Your task to perform on an android device: stop showing notifications on the lock screen Image 0: 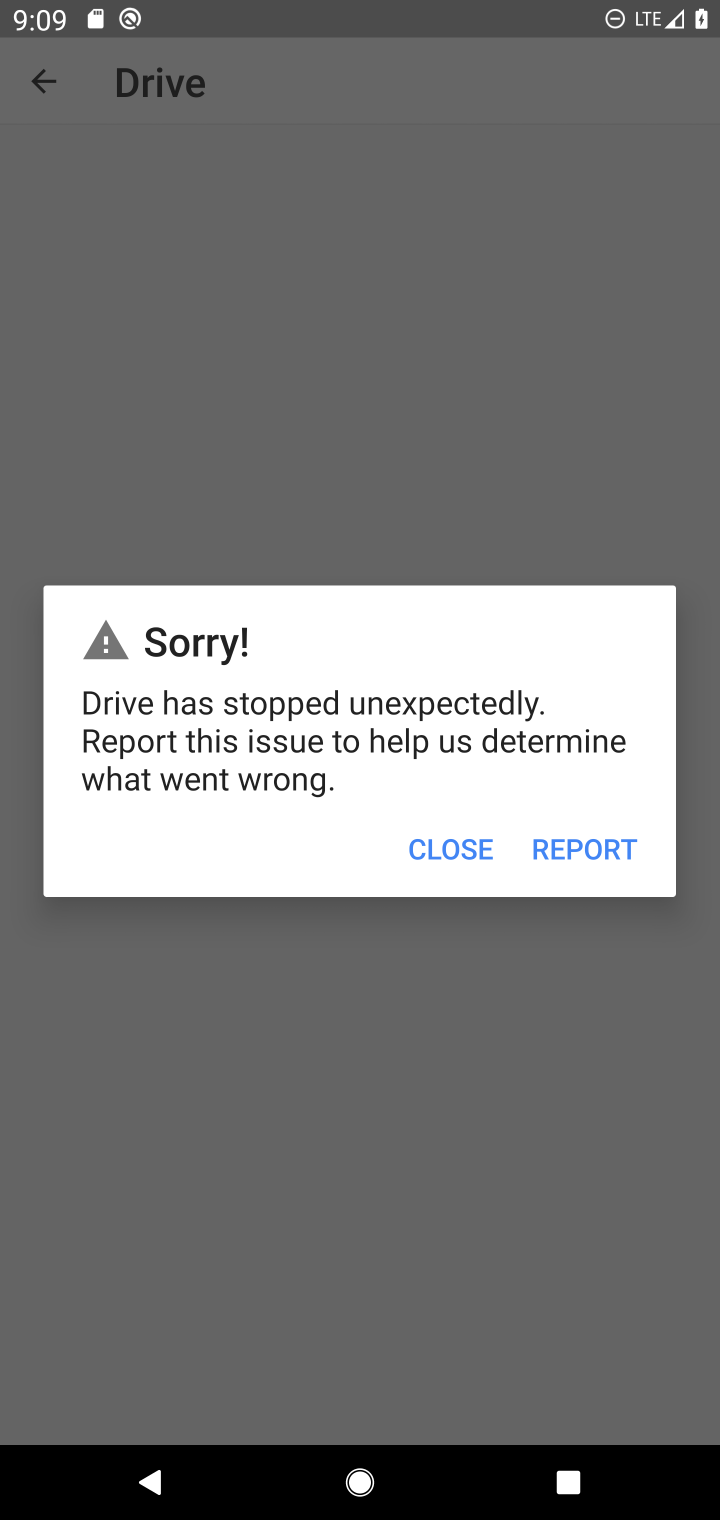
Step 0: press home button
Your task to perform on an android device: stop showing notifications on the lock screen Image 1: 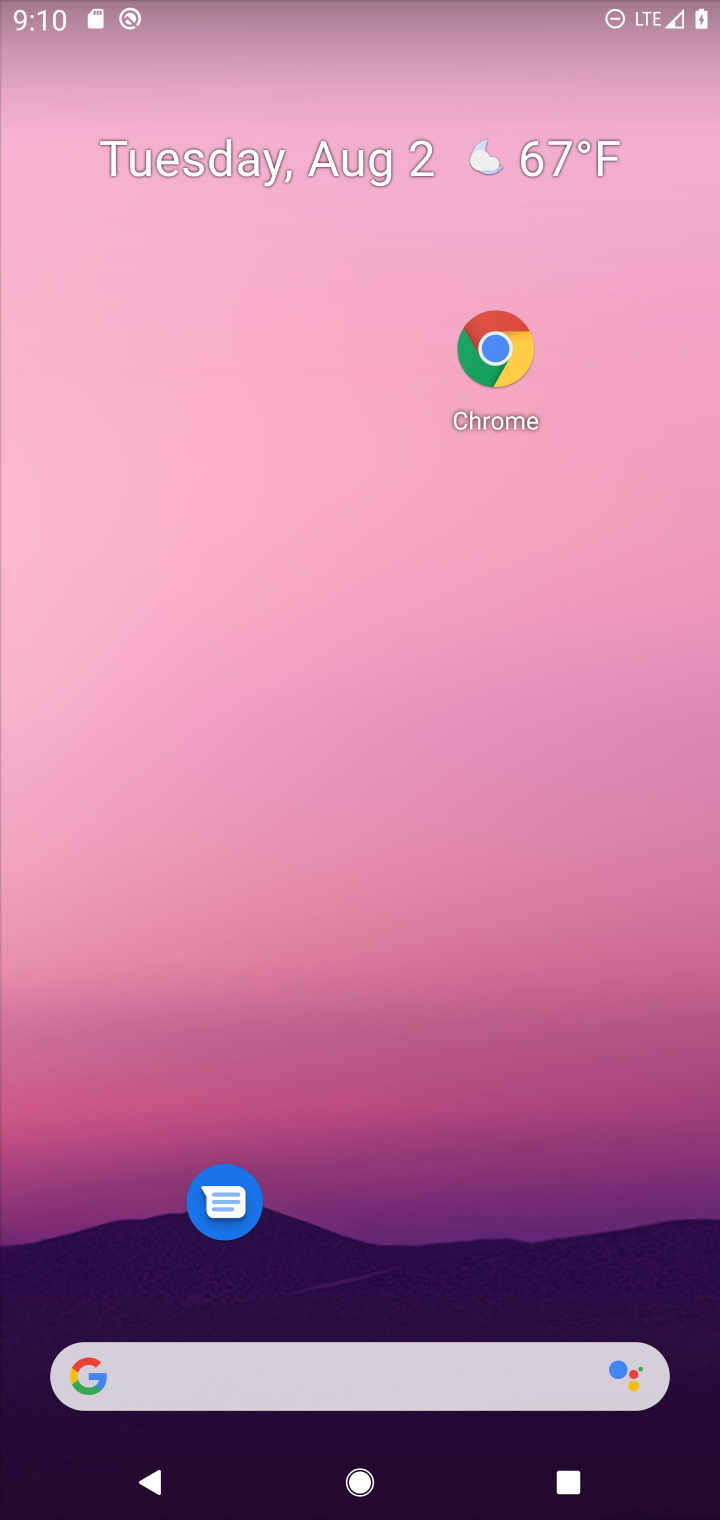
Step 1: drag from (423, 1115) to (475, 71)
Your task to perform on an android device: stop showing notifications on the lock screen Image 2: 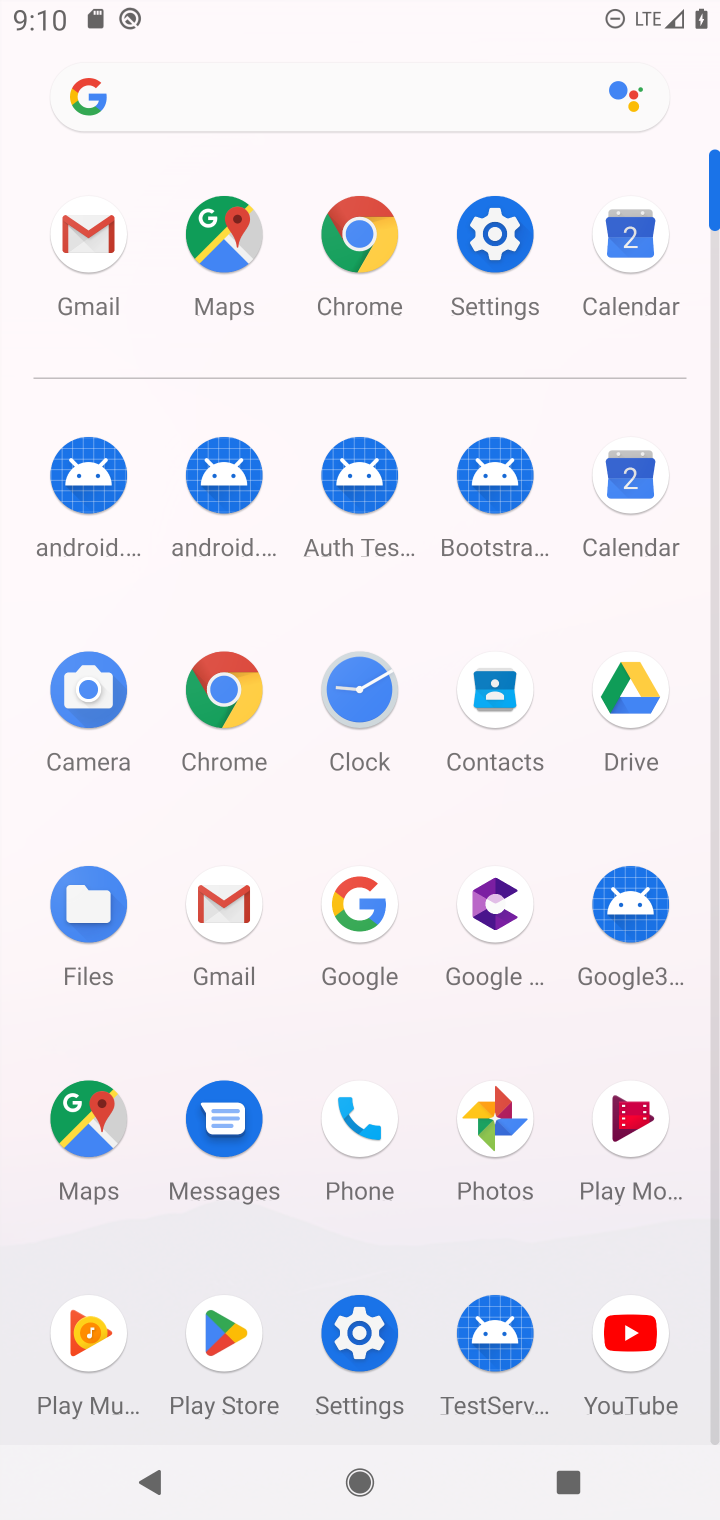
Step 2: click (497, 232)
Your task to perform on an android device: stop showing notifications on the lock screen Image 3: 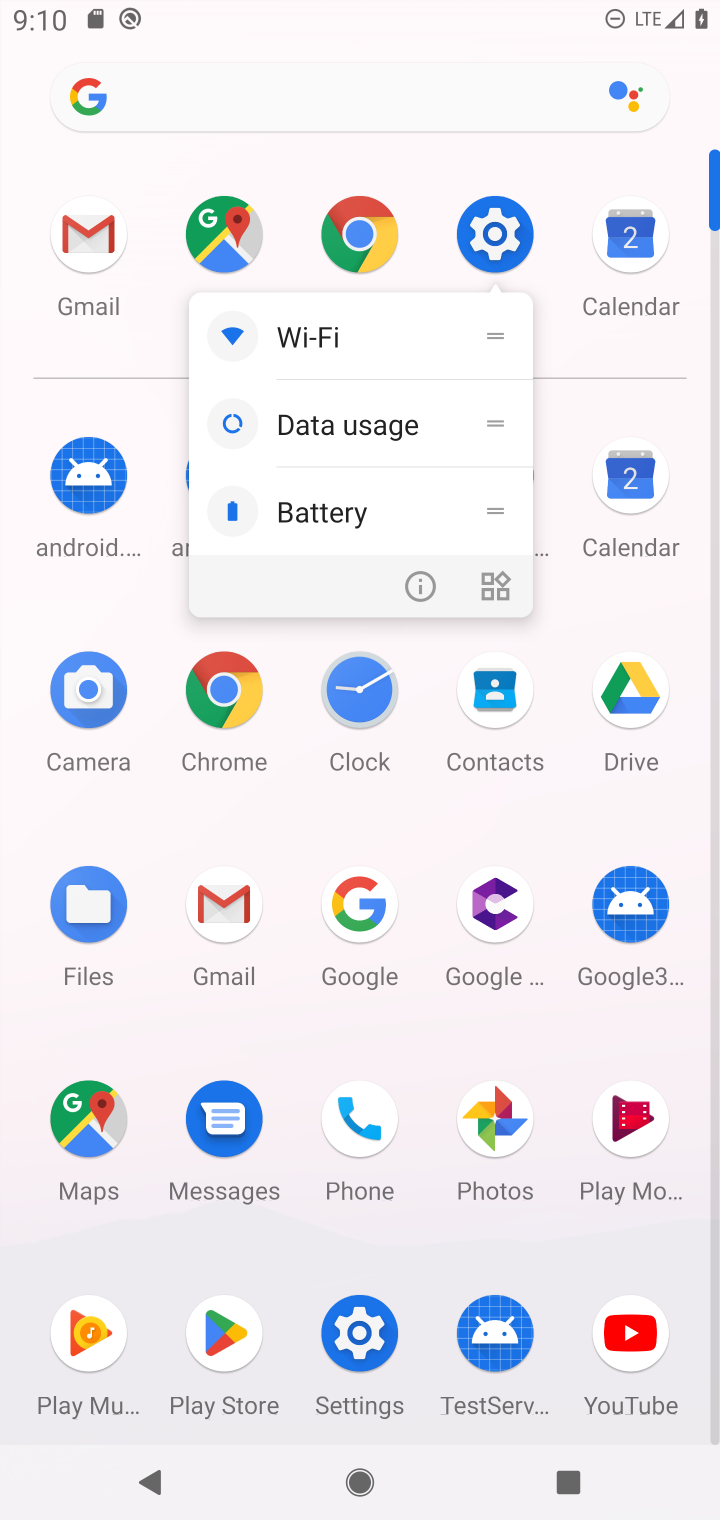
Step 3: click (497, 232)
Your task to perform on an android device: stop showing notifications on the lock screen Image 4: 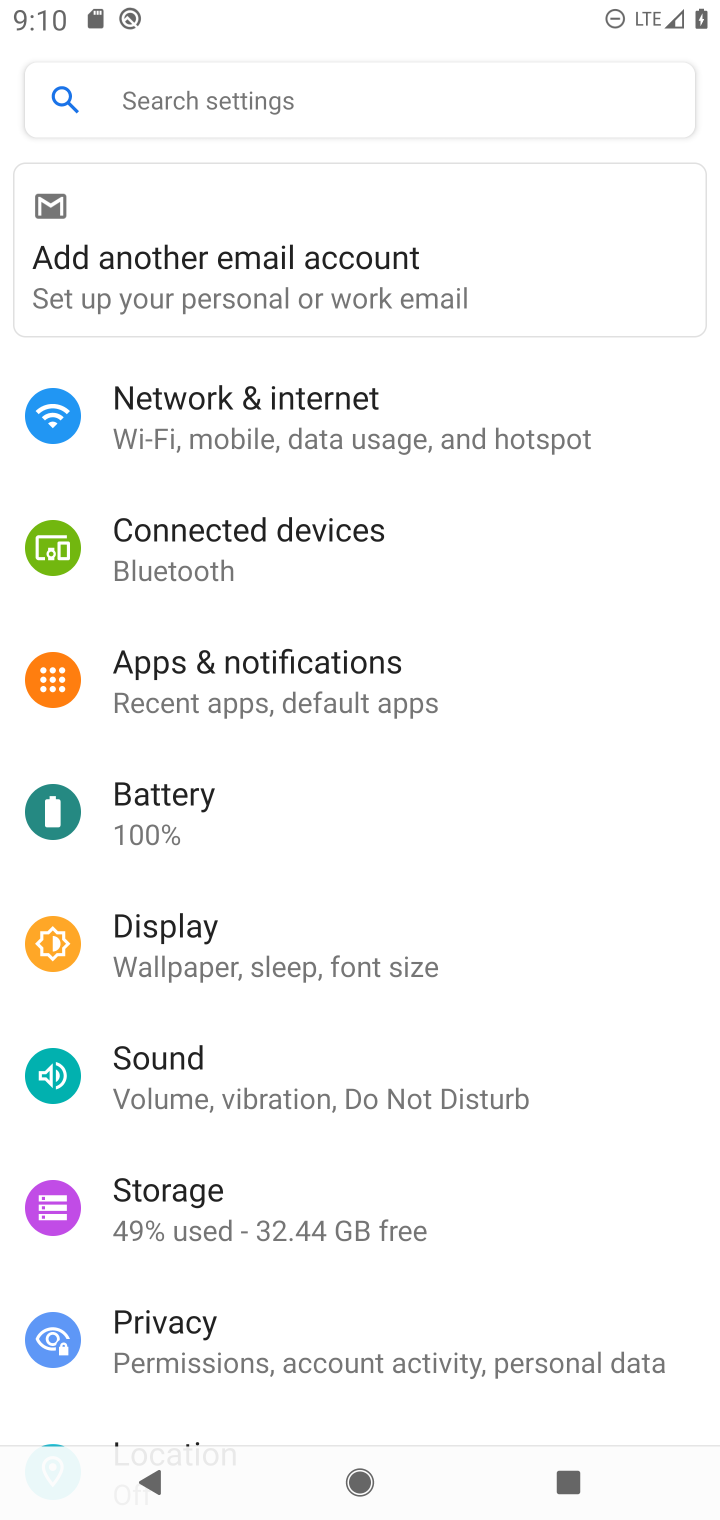
Step 4: click (280, 688)
Your task to perform on an android device: stop showing notifications on the lock screen Image 5: 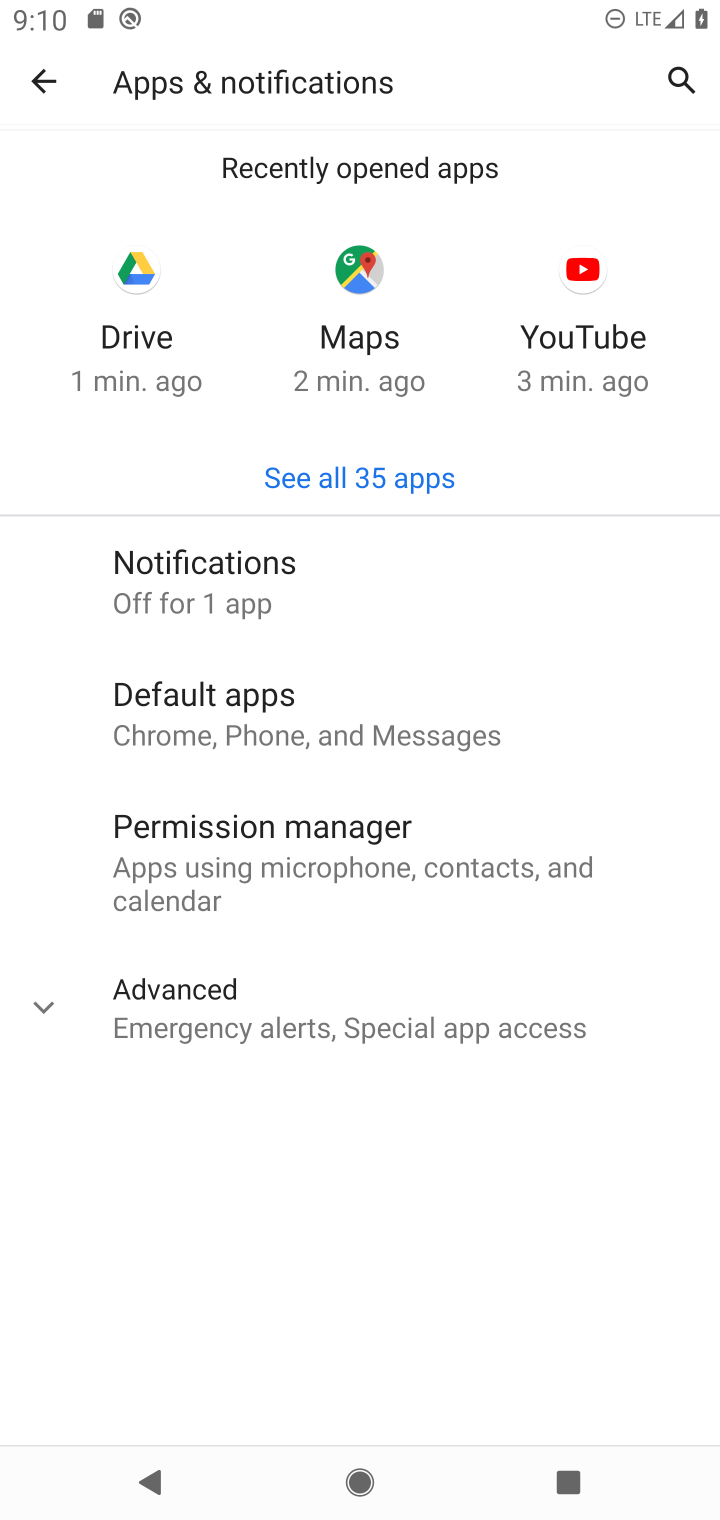
Step 5: click (210, 596)
Your task to perform on an android device: stop showing notifications on the lock screen Image 6: 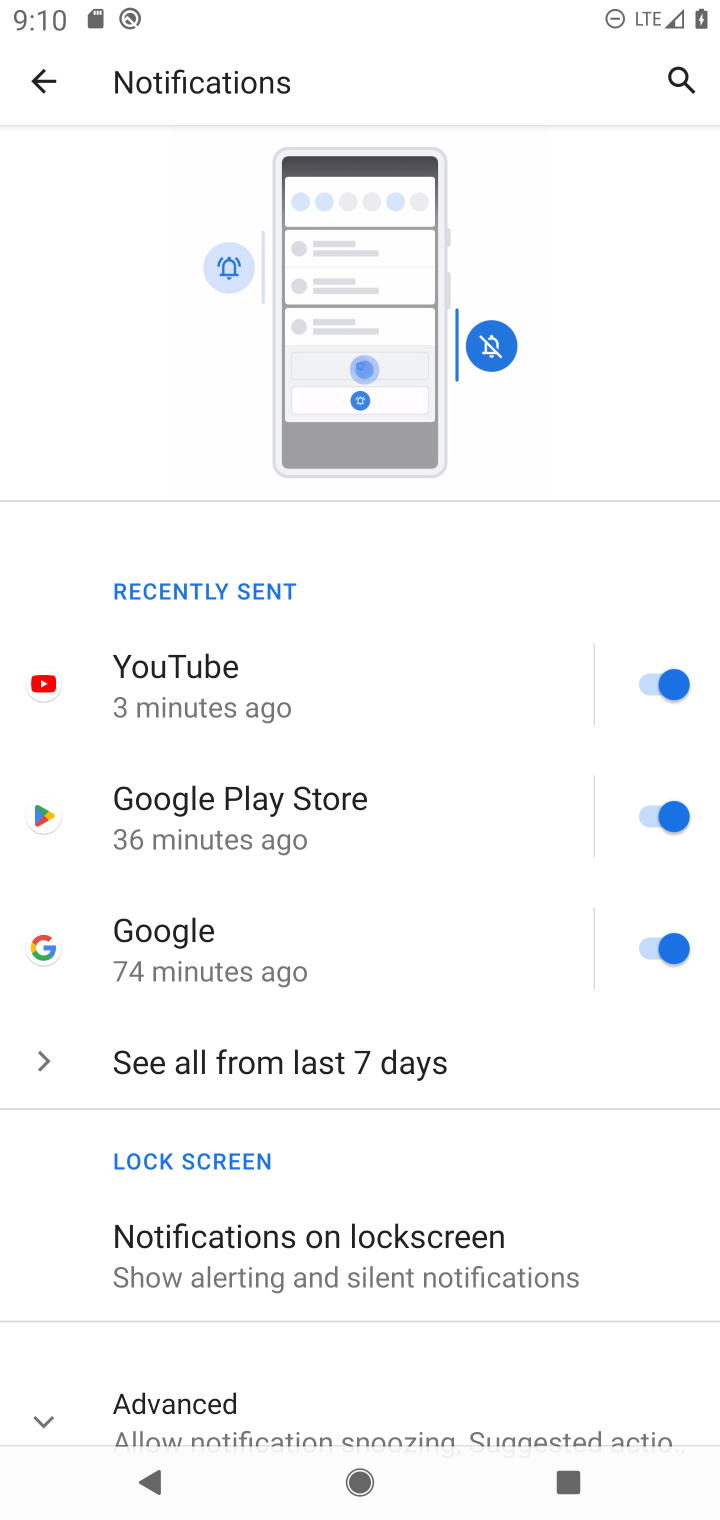
Step 6: click (249, 1242)
Your task to perform on an android device: stop showing notifications on the lock screen Image 7: 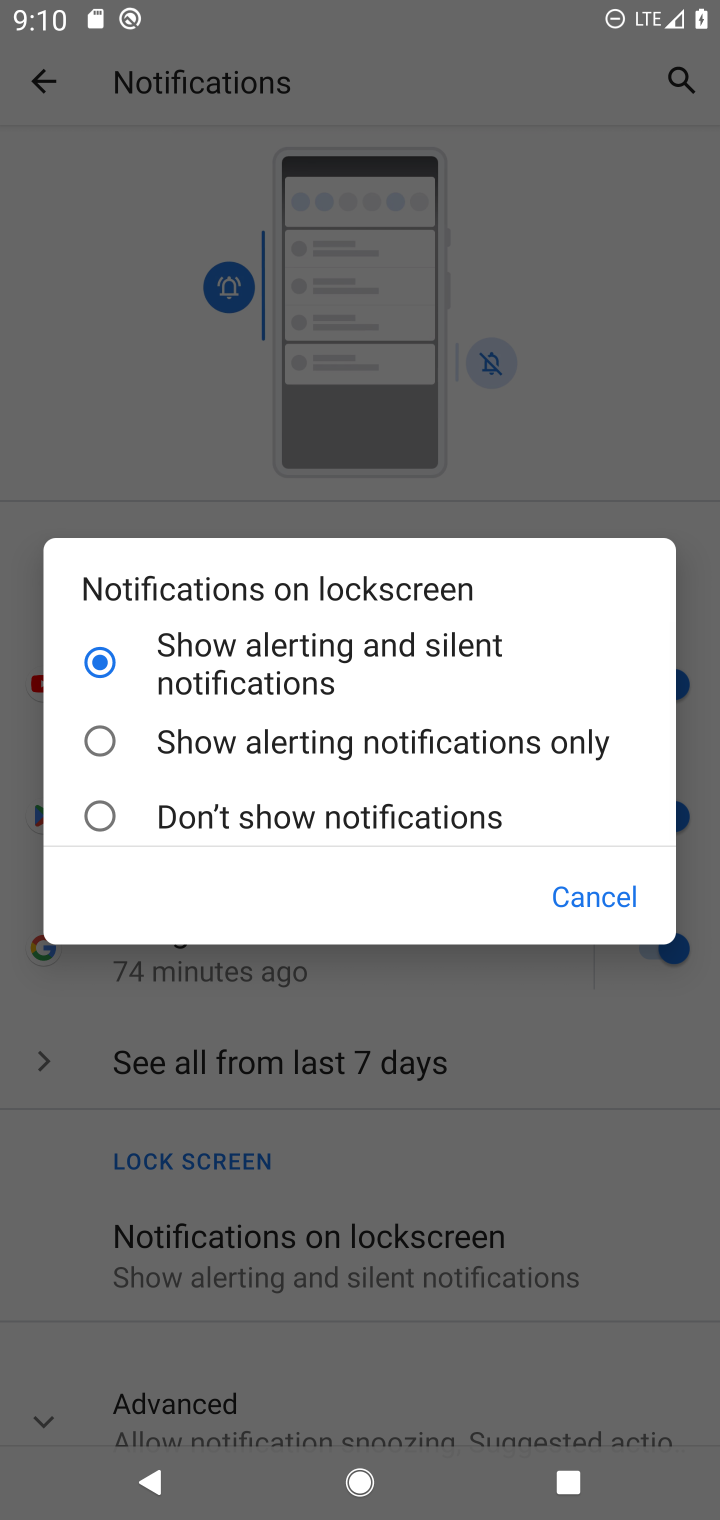
Step 7: click (100, 815)
Your task to perform on an android device: stop showing notifications on the lock screen Image 8: 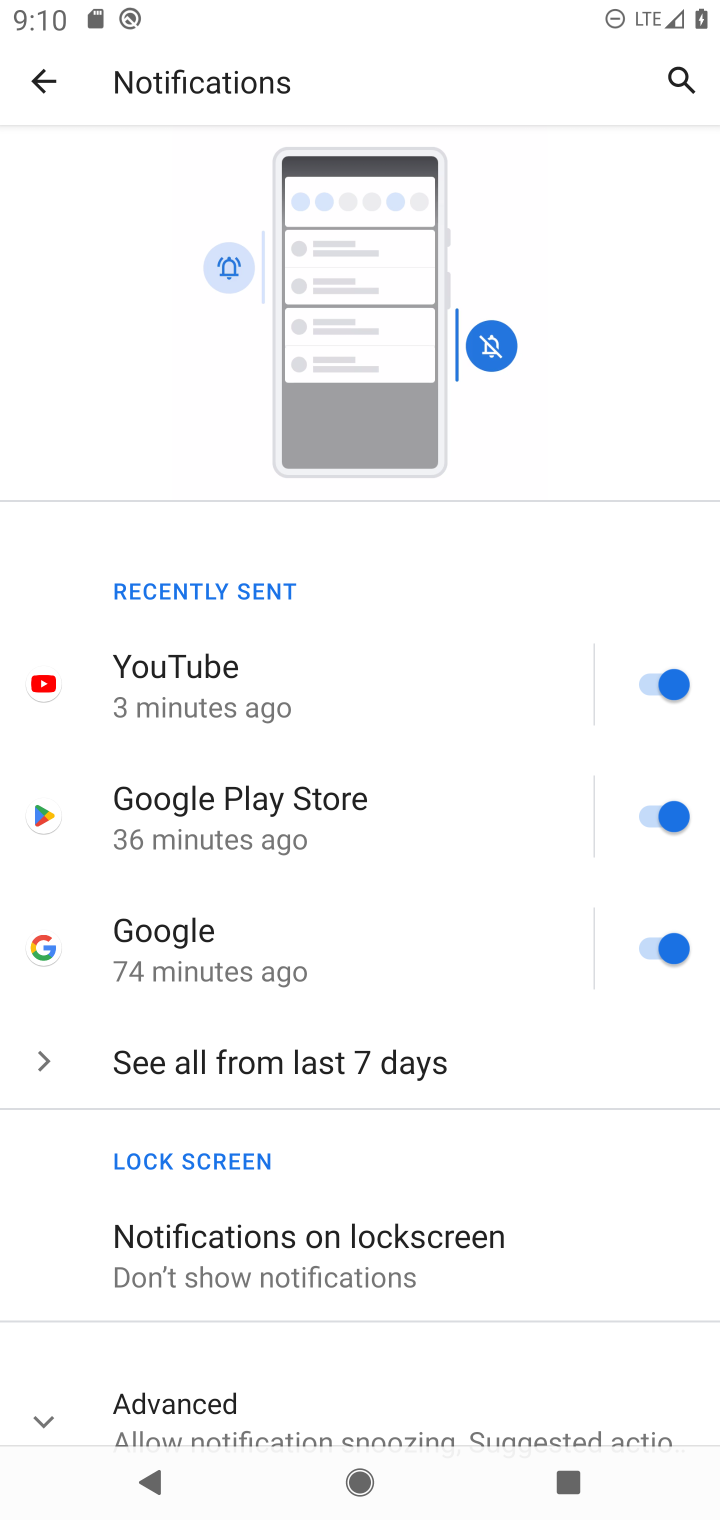
Step 8: task complete